Your task to perform on an android device: allow notifications from all sites in the chrome app Image 0: 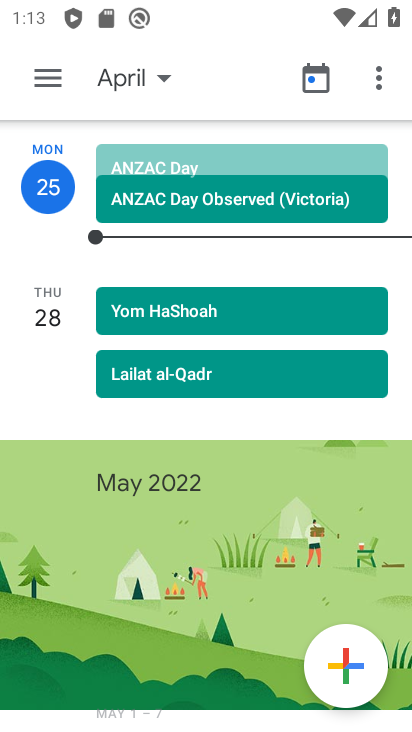
Step 0: press home button
Your task to perform on an android device: allow notifications from all sites in the chrome app Image 1: 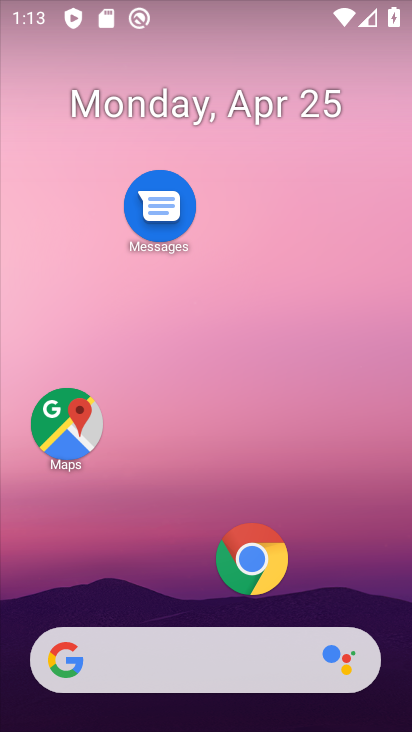
Step 1: click (252, 563)
Your task to perform on an android device: allow notifications from all sites in the chrome app Image 2: 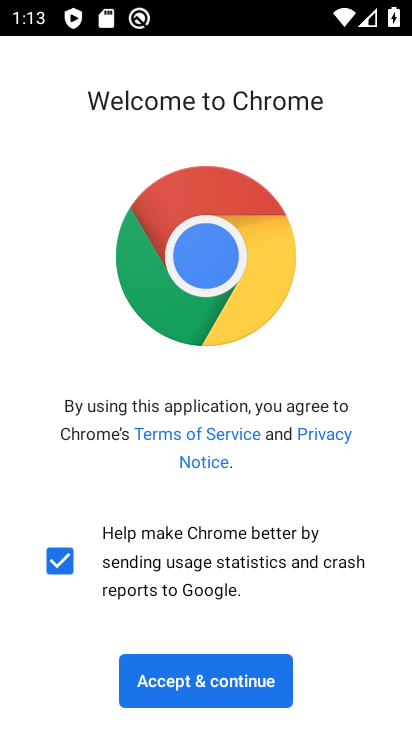
Step 2: click (194, 683)
Your task to perform on an android device: allow notifications from all sites in the chrome app Image 3: 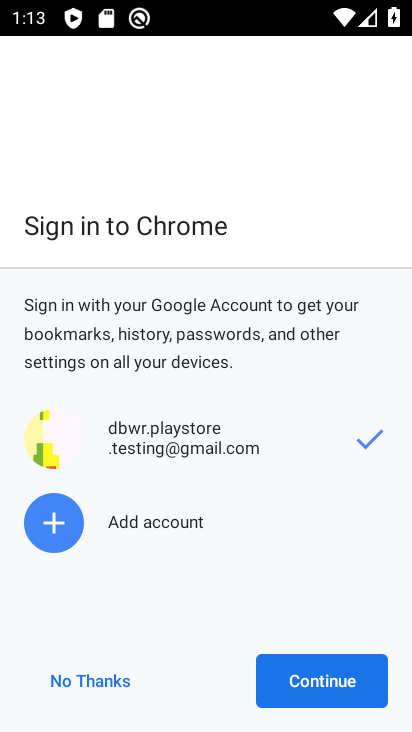
Step 3: click (297, 687)
Your task to perform on an android device: allow notifications from all sites in the chrome app Image 4: 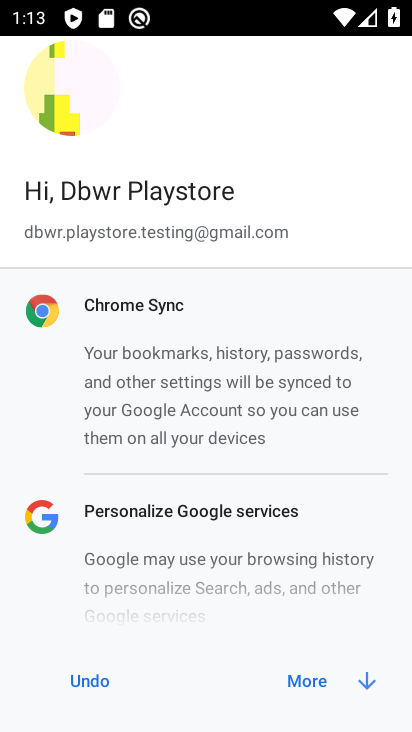
Step 4: click (307, 687)
Your task to perform on an android device: allow notifications from all sites in the chrome app Image 5: 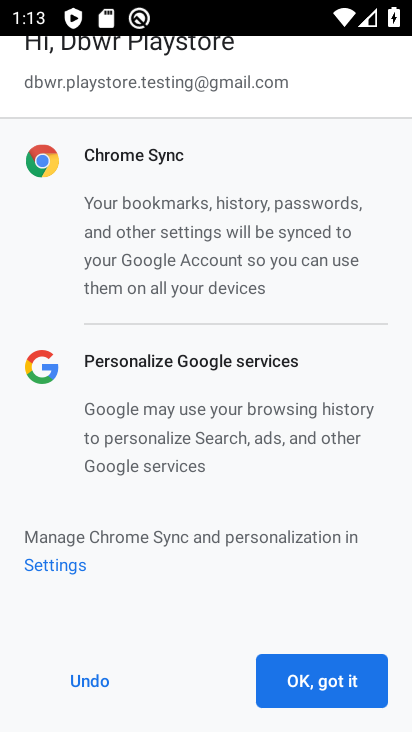
Step 5: click (310, 684)
Your task to perform on an android device: allow notifications from all sites in the chrome app Image 6: 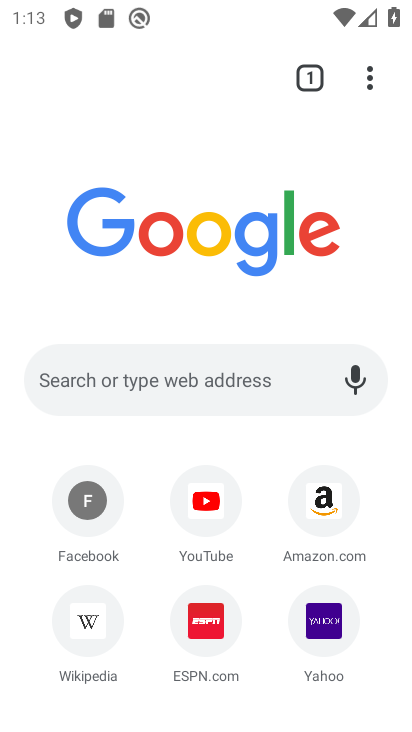
Step 6: click (367, 78)
Your task to perform on an android device: allow notifications from all sites in the chrome app Image 7: 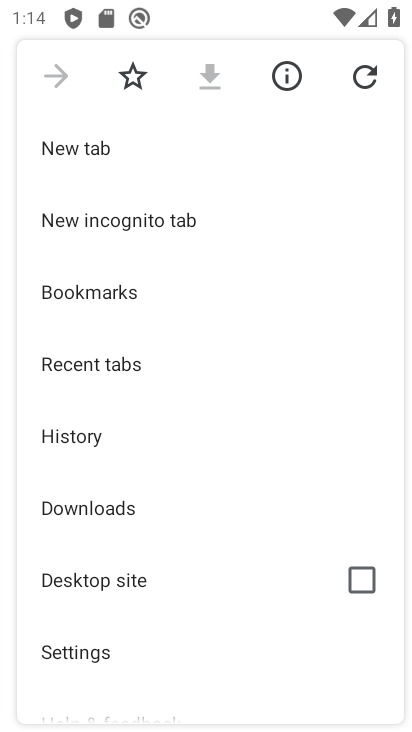
Step 7: click (126, 650)
Your task to perform on an android device: allow notifications from all sites in the chrome app Image 8: 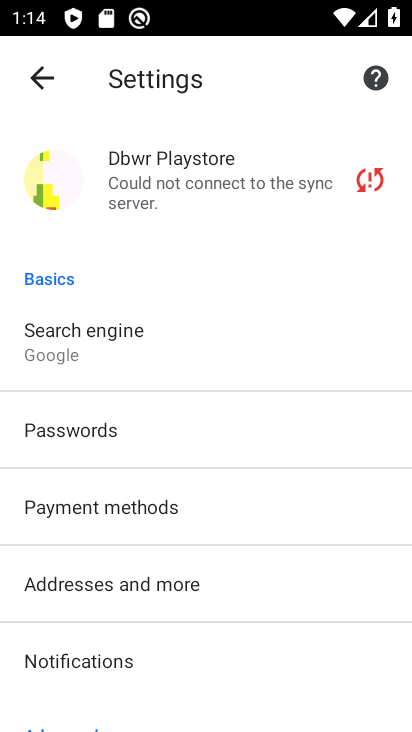
Step 8: drag from (193, 640) to (197, 342)
Your task to perform on an android device: allow notifications from all sites in the chrome app Image 9: 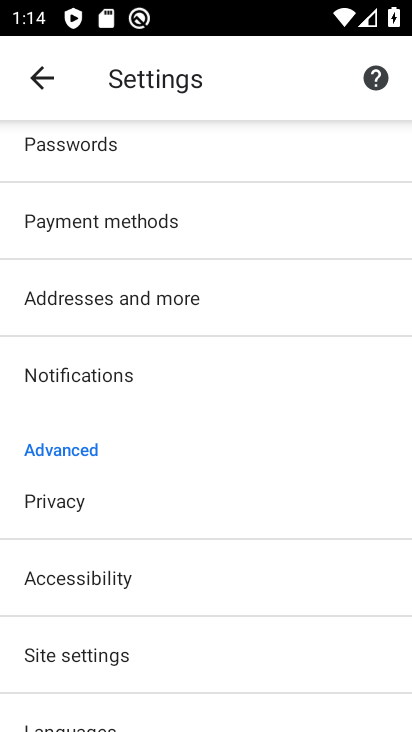
Step 9: click (81, 664)
Your task to perform on an android device: allow notifications from all sites in the chrome app Image 10: 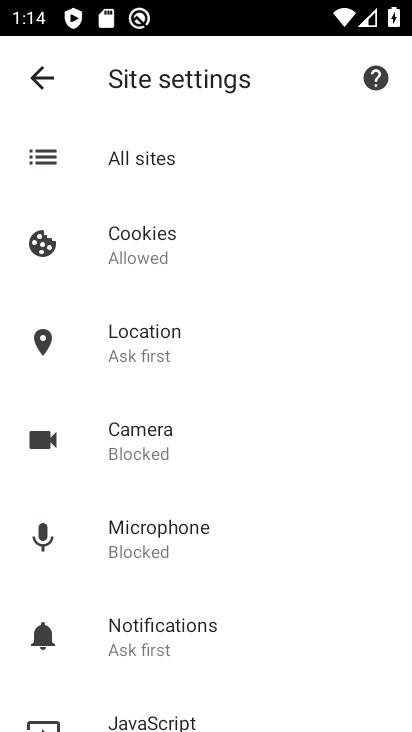
Step 10: click (184, 632)
Your task to perform on an android device: allow notifications from all sites in the chrome app Image 11: 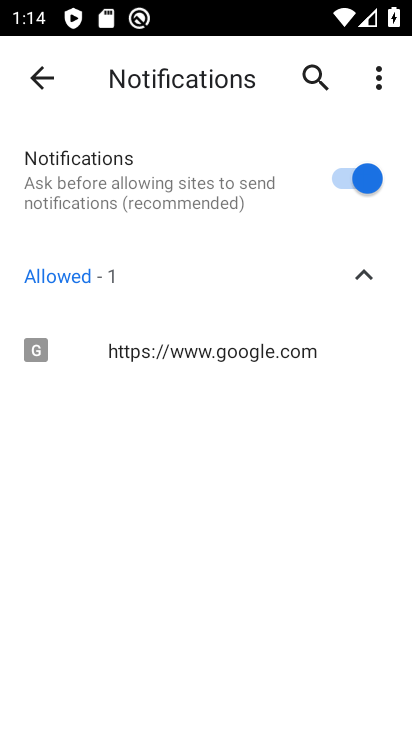
Step 11: task complete